Your task to perform on an android device: Go to privacy settings Image 0: 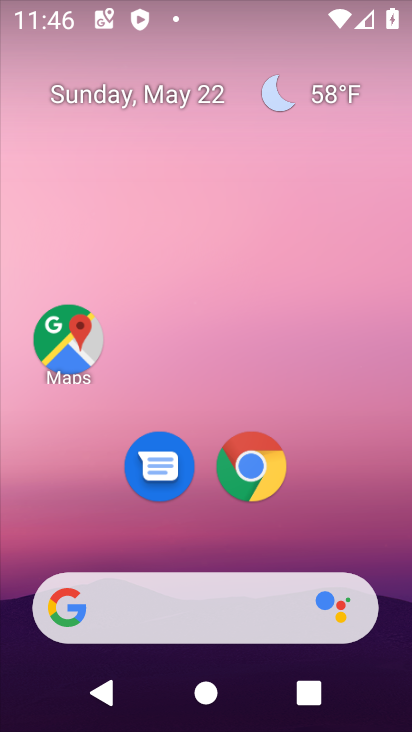
Step 0: click (260, 467)
Your task to perform on an android device: Go to privacy settings Image 1: 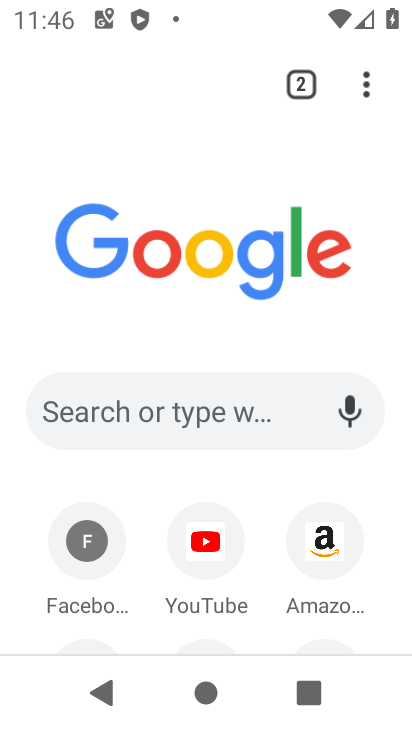
Step 1: click (357, 83)
Your task to perform on an android device: Go to privacy settings Image 2: 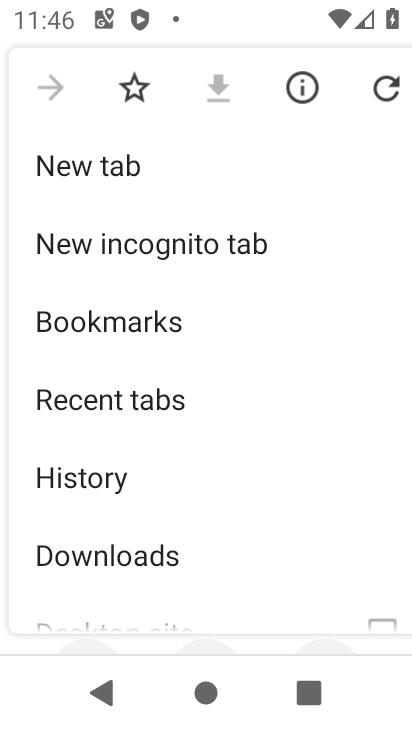
Step 2: drag from (108, 543) to (86, 180)
Your task to perform on an android device: Go to privacy settings Image 3: 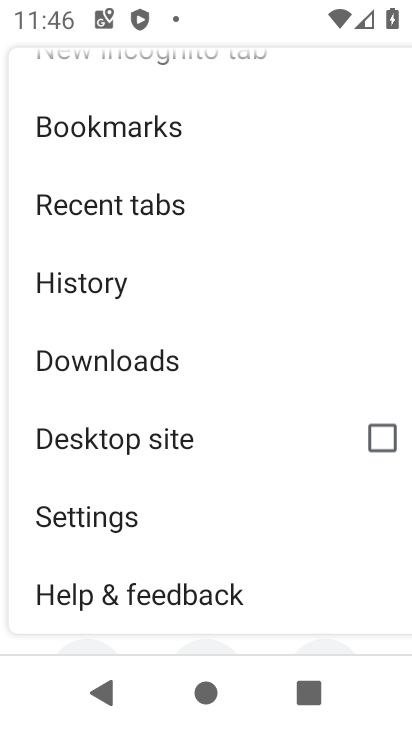
Step 3: click (109, 522)
Your task to perform on an android device: Go to privacy settings Image 4: 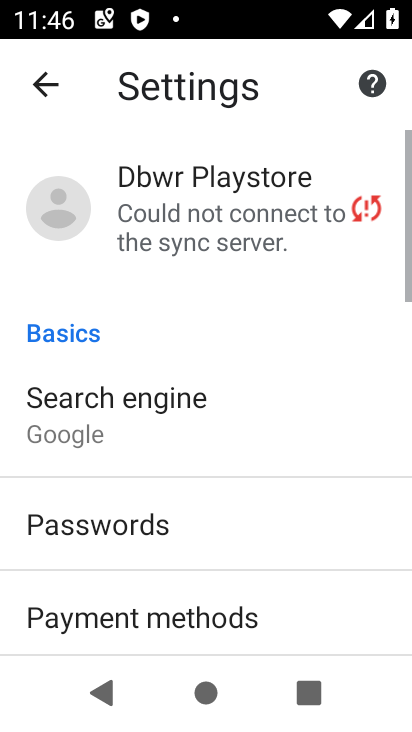
Step 4: drag from (182, 522) to (149, 92)
Your task to perform on an android device: Go to privacy settings Image 5: 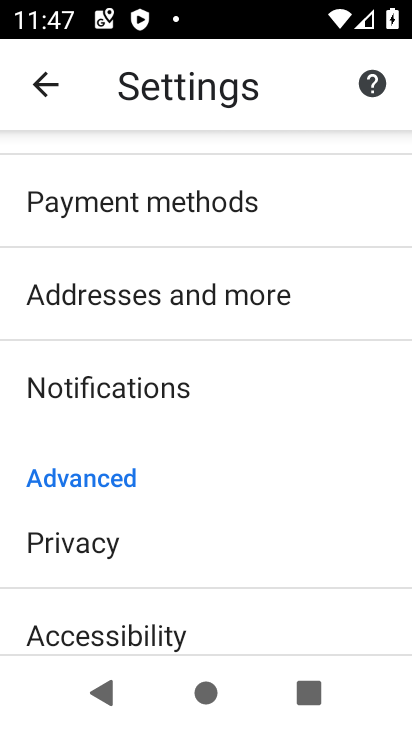
Step 5: click (104, 551)
Your task to perform on an android device: Go to privacy settings Image 6: 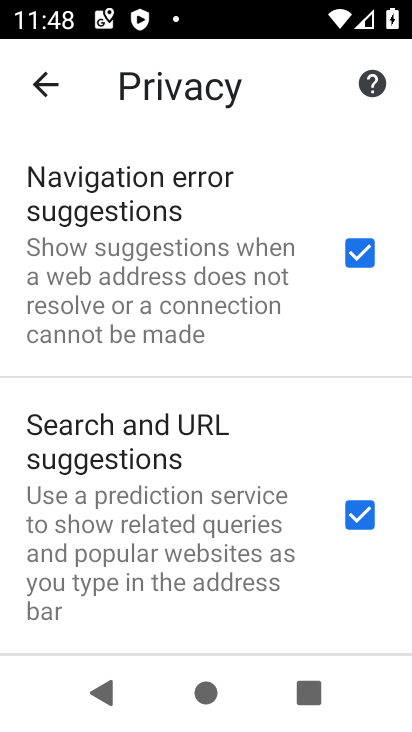
Step 6: task complete